Your task to perform on an android device: open app "Life360: Find Family & Friends" Image 0: 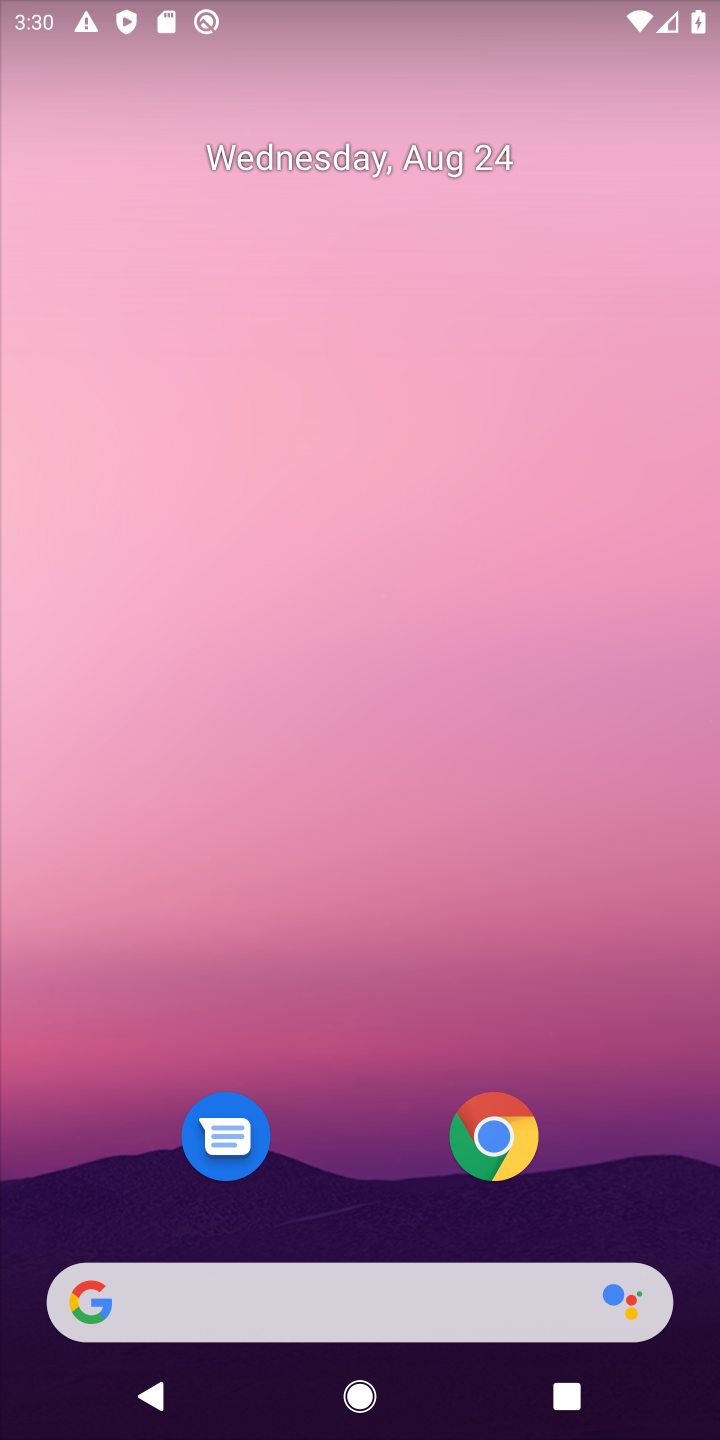
Step 0: press home button
Your task to perform on an android device: open app "Life360: Find Family & Friends" Image 1: 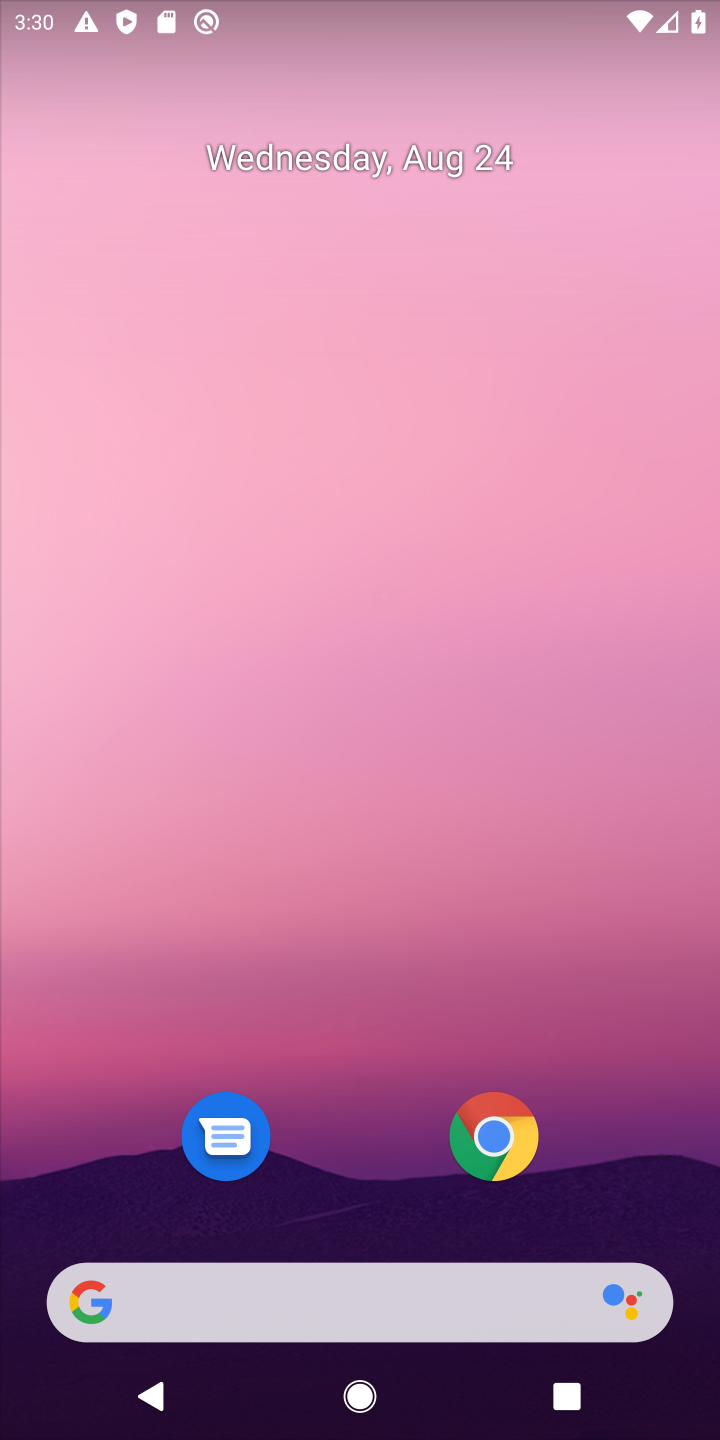
Step 1: drag from (380, 1203) to (338, 94)
Your task to perform on an android device: open app "Life360: Find Family & Friends" Image 2: 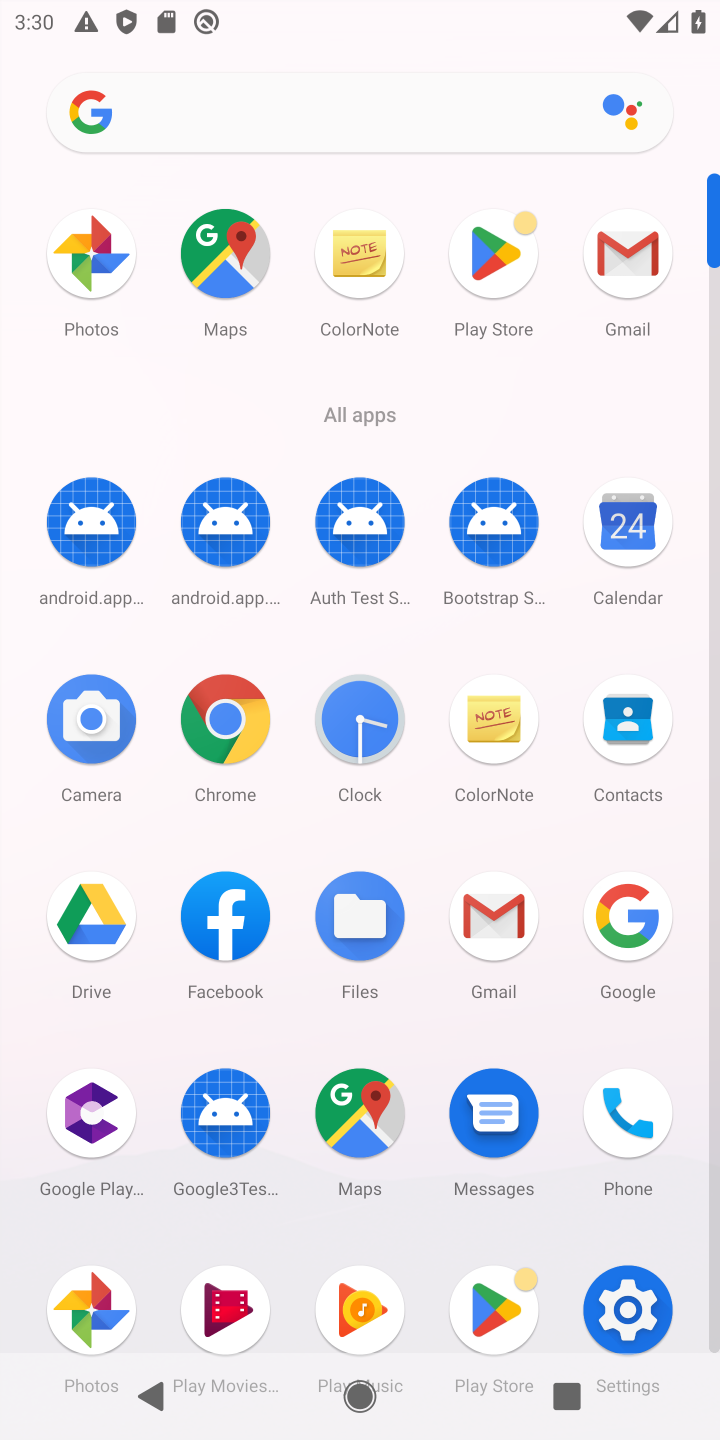
Step 2: click (498, 292)
Your task to perform on an android device: open app "Life360: Find Family & Friends" Image 3: 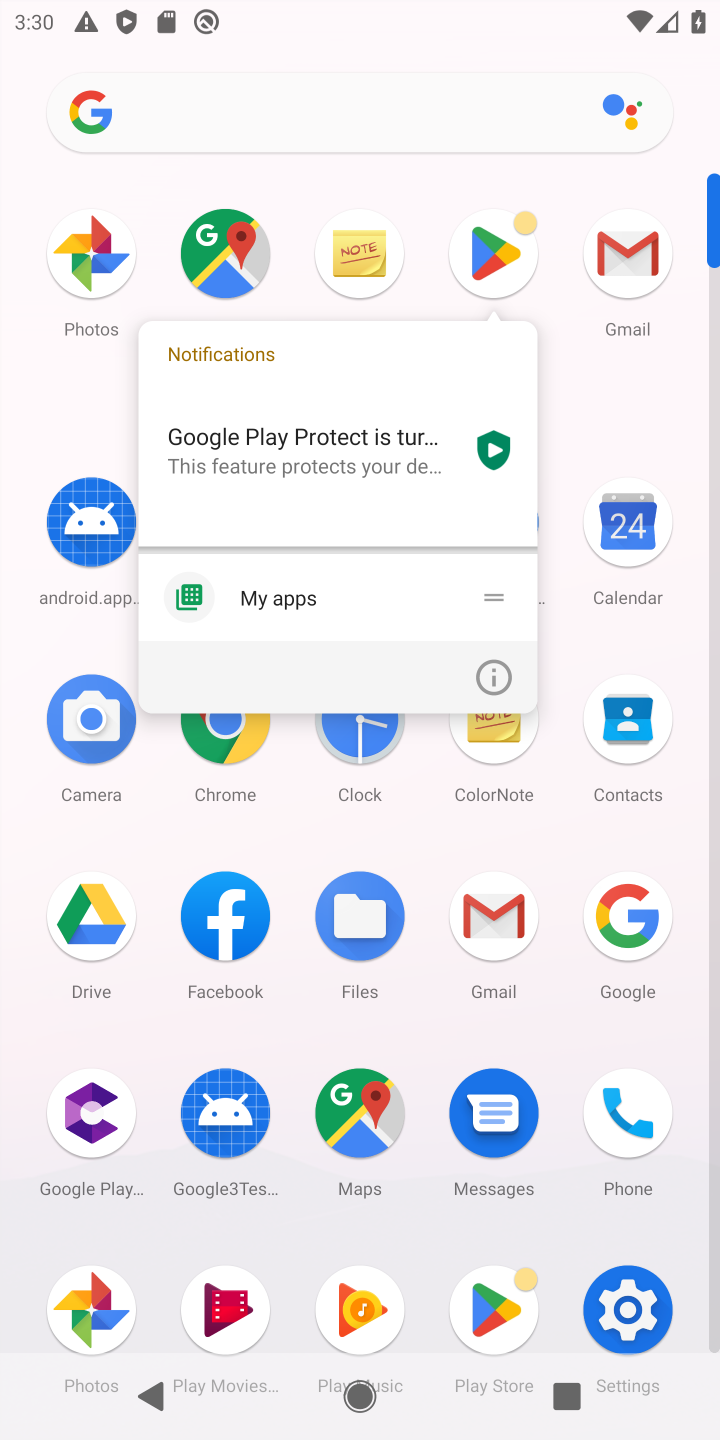
Step 3: click (498, 256)
Your task to perform on an android device: open app "Life360: Find Family & Friends" Image 4: 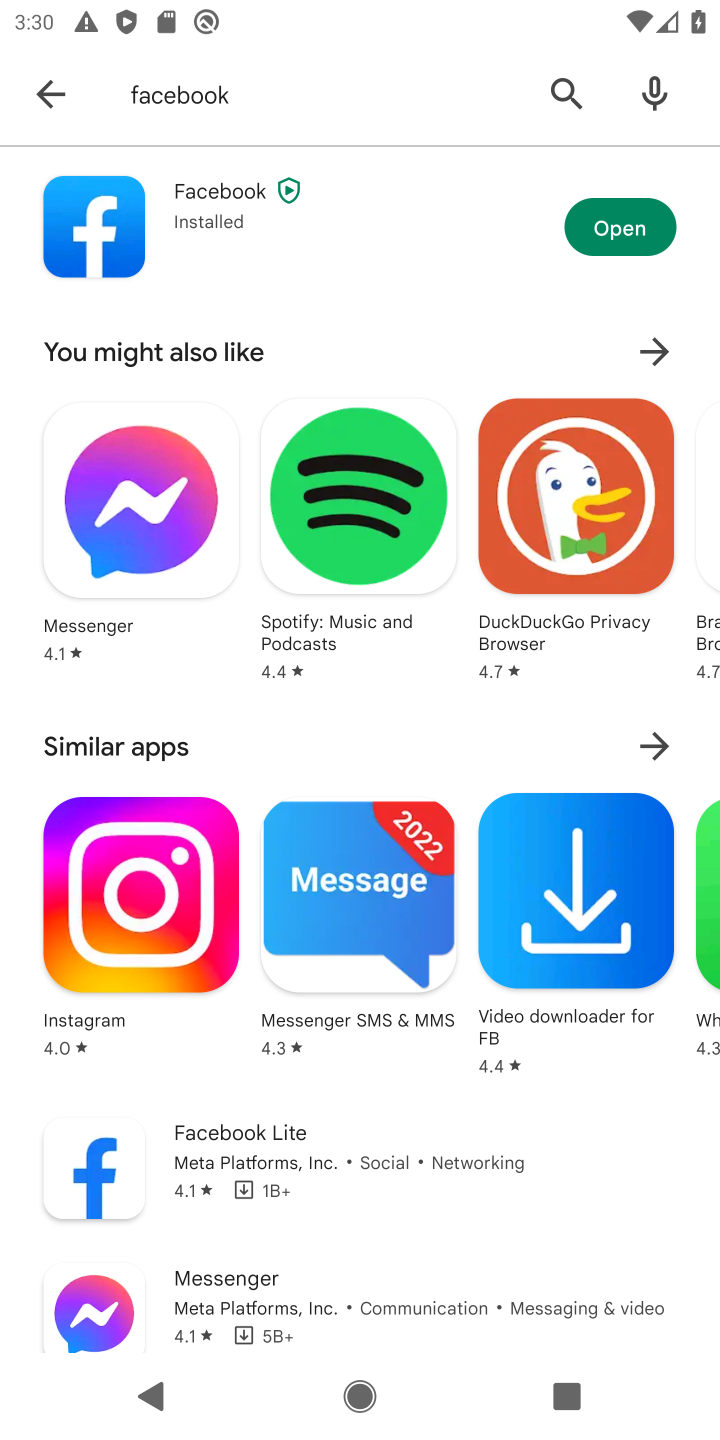
Step 4: click (44, 84)
Your task to perform on an android device: open app "Life360: Find Family & Friends" Image 5: 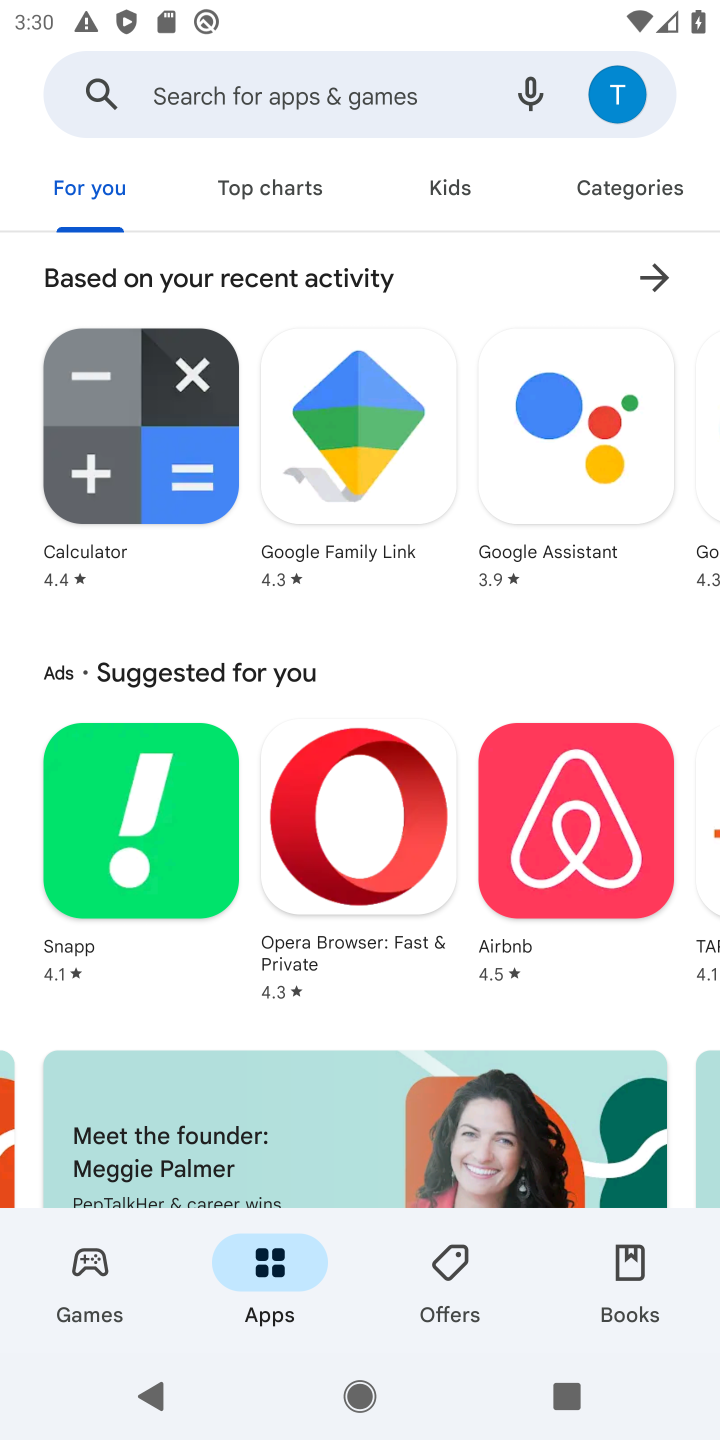
Step 5: click (240, 105)
Your task to perform on an android device: open app "Life360: Find Family & Friends" Image 6: 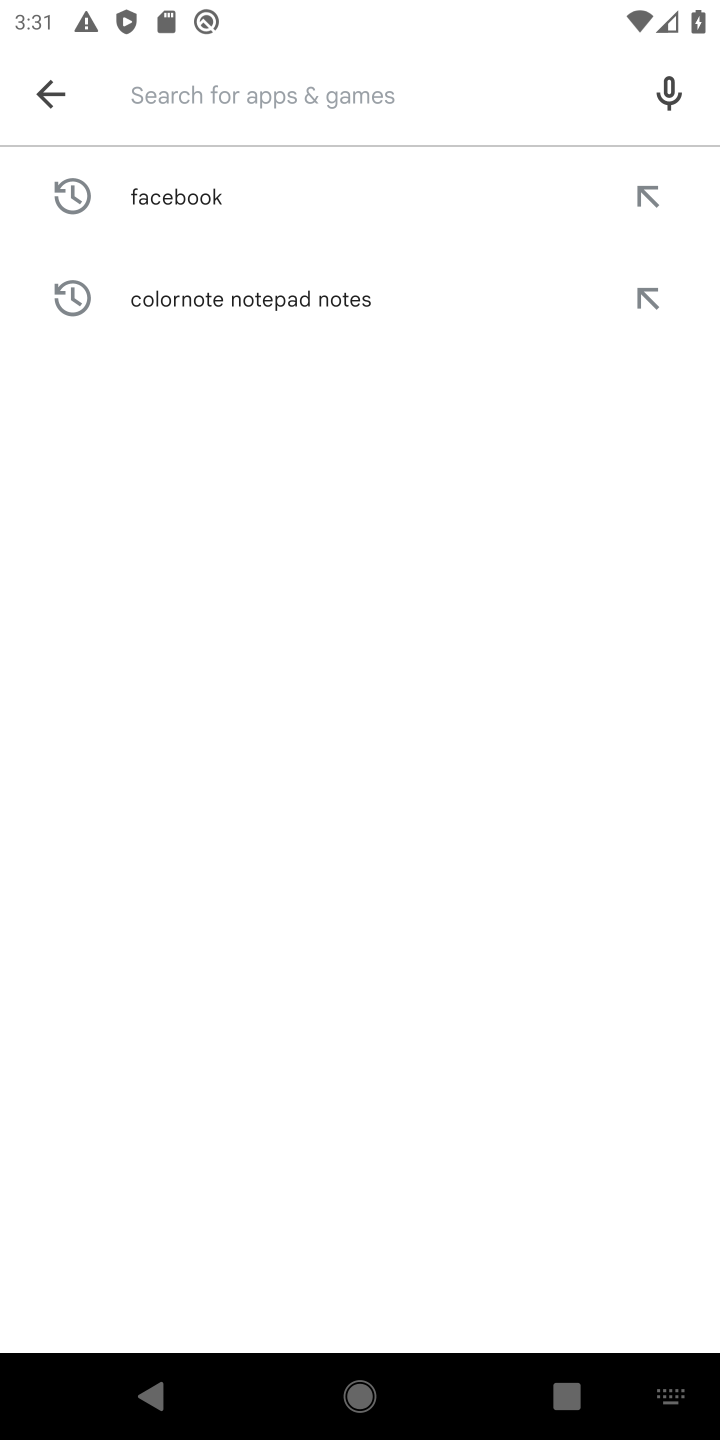
Step 6: type "Life360: Find Family & Friends"
Your task to perform on an android device: open app "Life360: Find Family & Friends" Image 7: 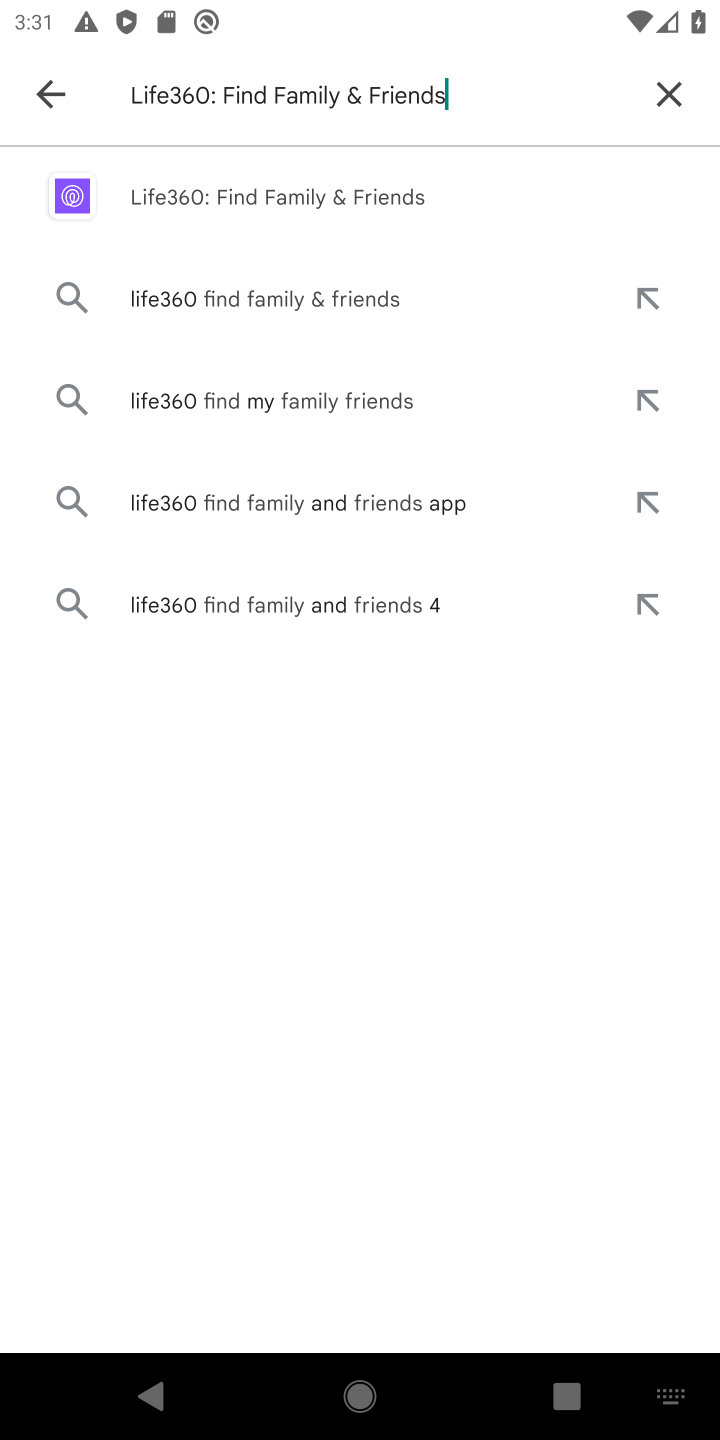
Step 7: click (180, 188)
Your task to perform on an android device: open app "Life360: Find Family & Friends" Image 8: 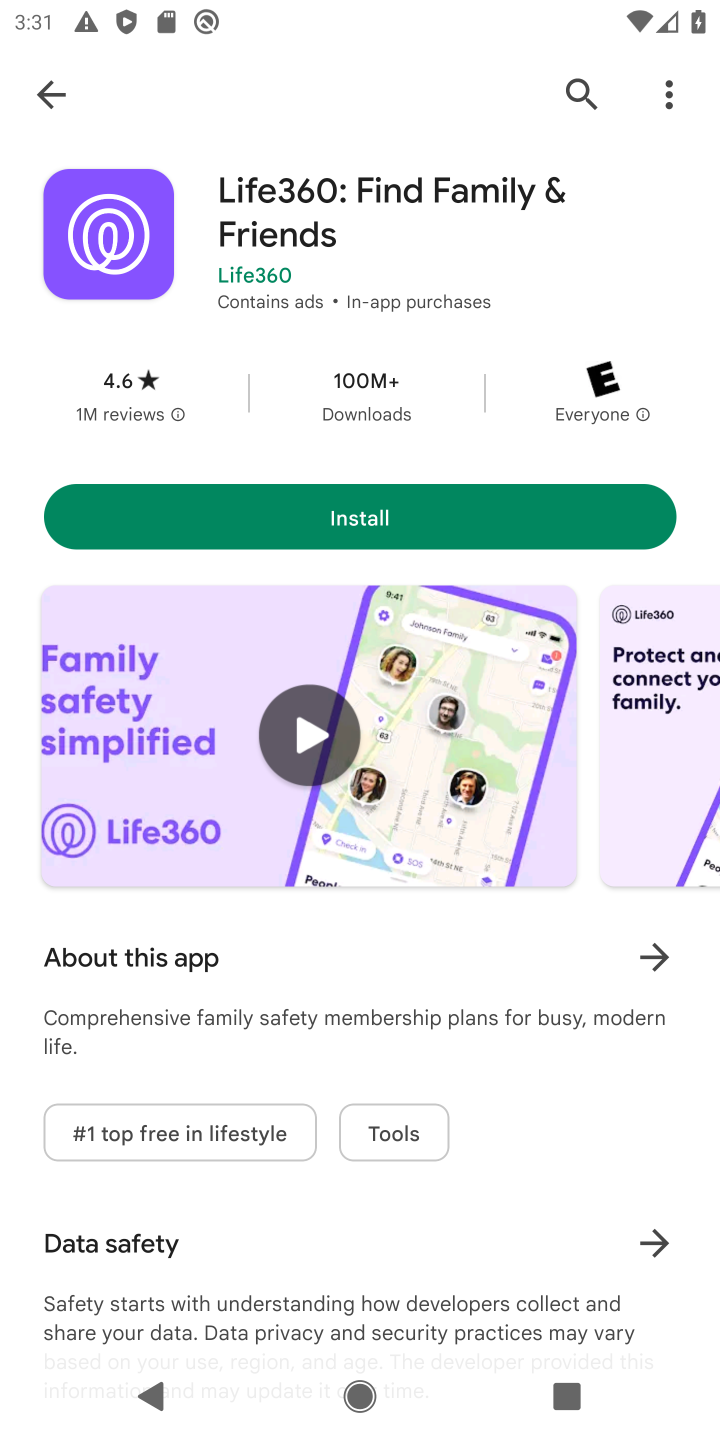
Step 8: click (355, 522)
Your task to perform on an android device: open app "Life360: Find Family & Friends" Image 9: 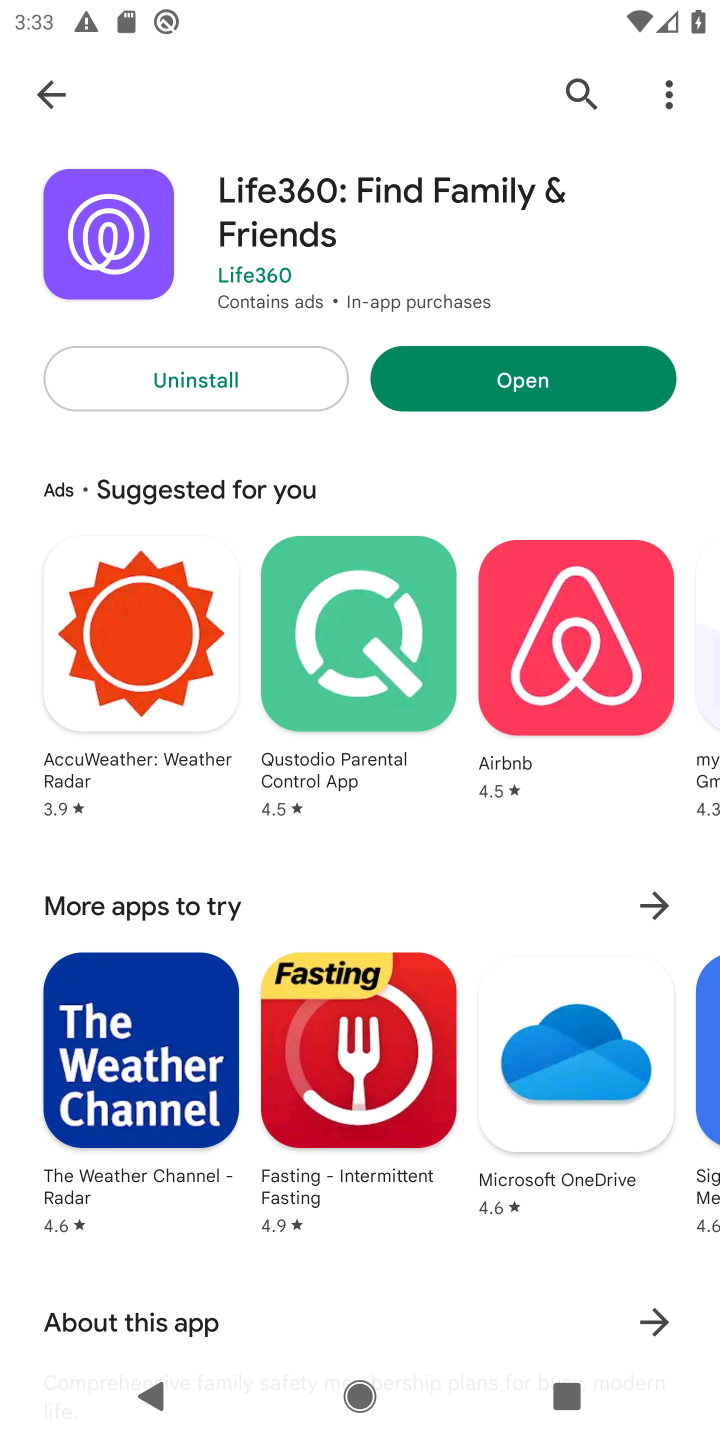
Step 9: click (530, 372)
Your task to perform on an android device: open app "Life360: Find Family & Friends" Image 10: 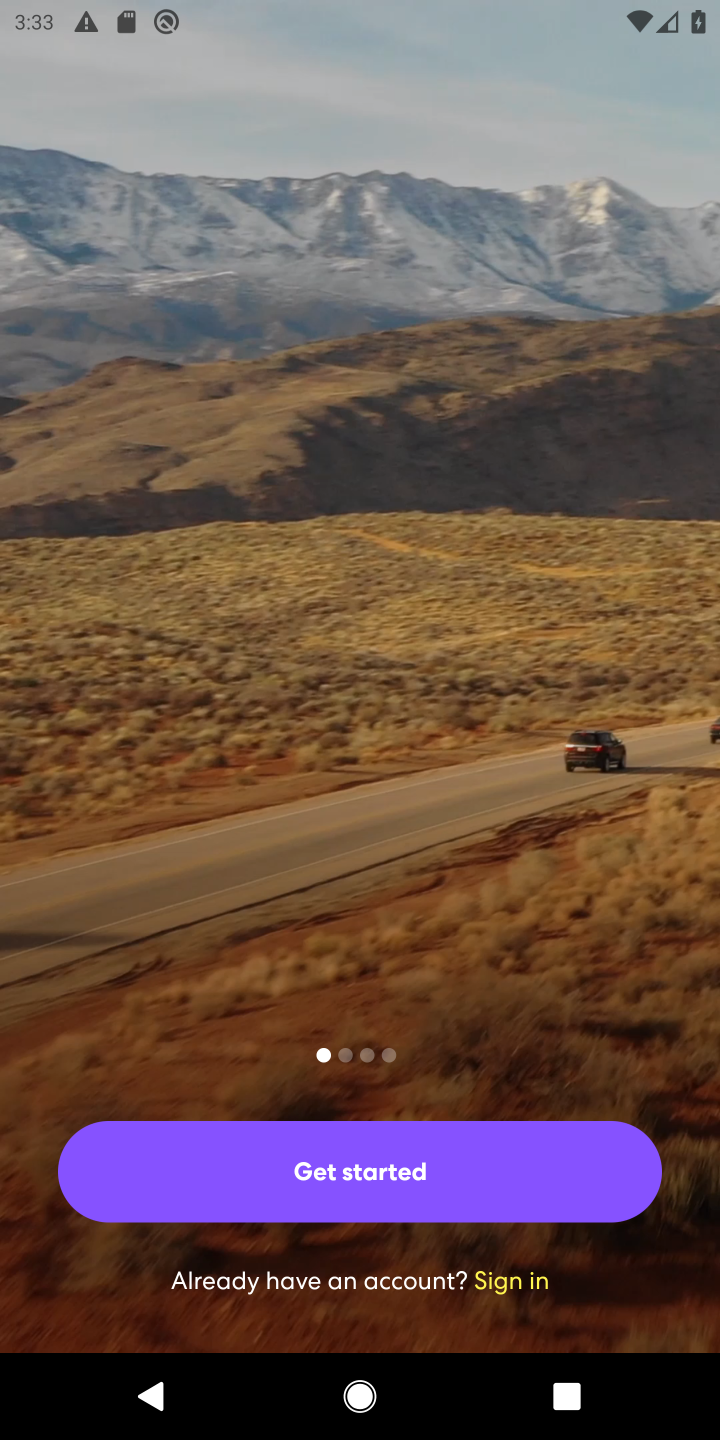
Step 10: task complete